Your task to perform on an android device: Open settings Image 0: 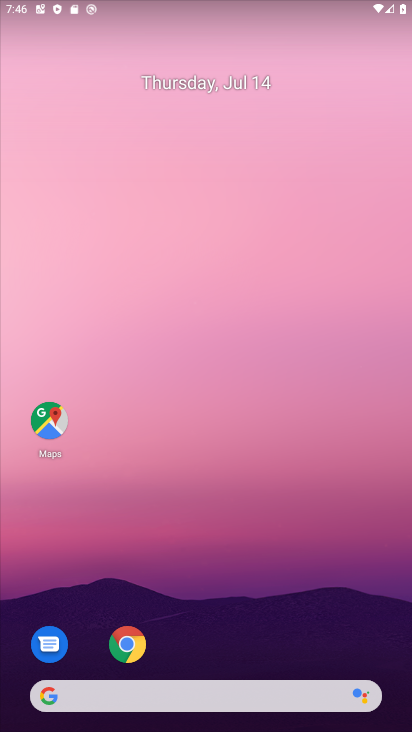
Step 0: drag from (240, 656) to (369, 229)
Your task to perform on an android device: Open settings Image 1: 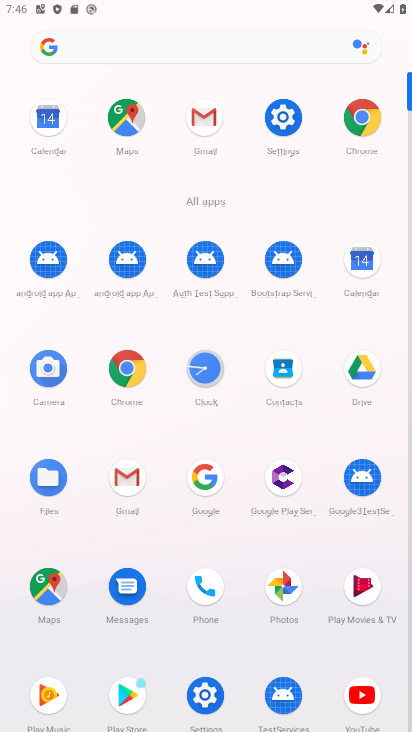
Step 1: click (310, 111)
Your task to perform on an android device: Open settings Image 2: 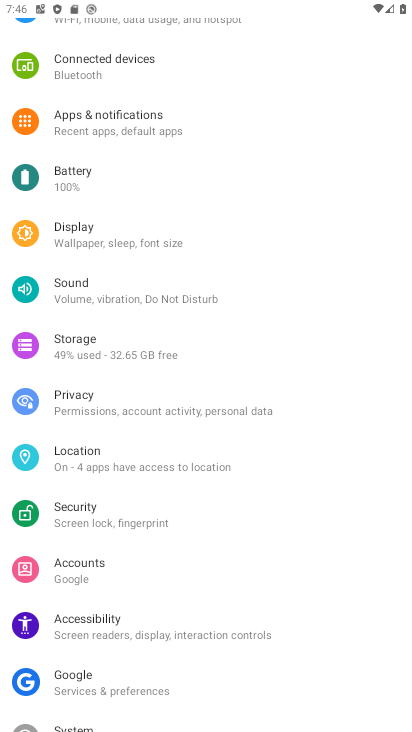
Step 2: task complete